Your task to perform on an android device: Go to network settings Image 0: 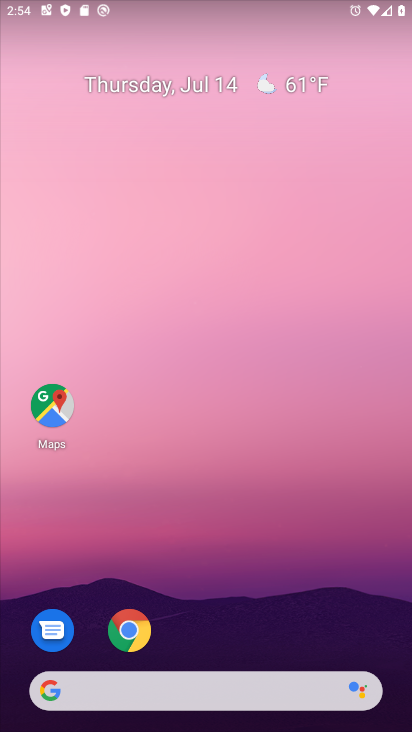
Step 0: click (130, 689)
Your task to perform on an android device: Go to network settings Image 1: 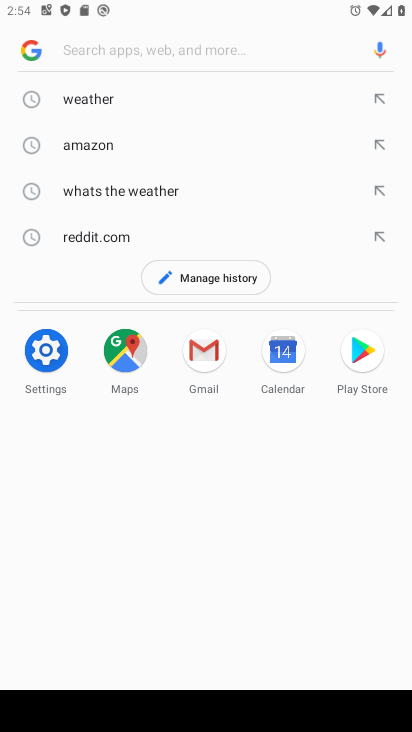
Step 1: click (52, 358)
Your task to perform on an android device: Go to network settings Image 2: 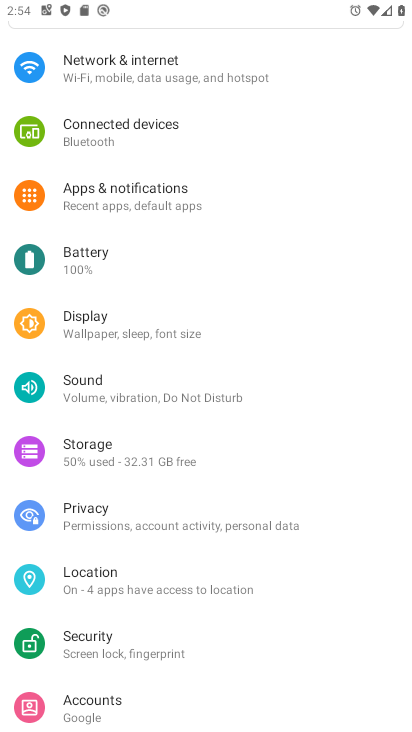
Step 2: click (148, 68)
Your task to perform on an android device: Go to network settings Image 3: 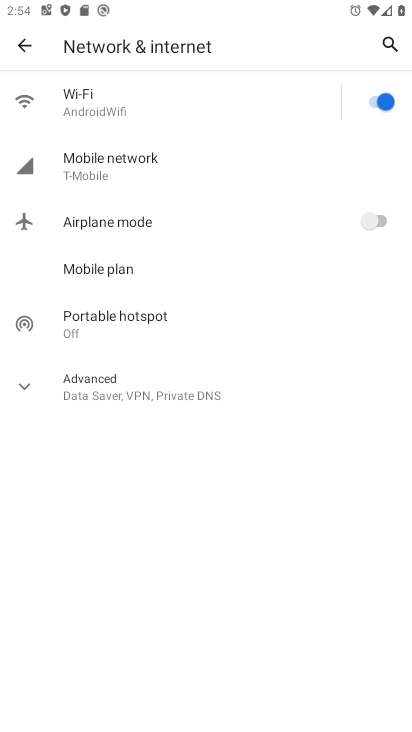
Step 3: click (153, 156)
Your task to perform on an android device: Go to network settings Image 4: 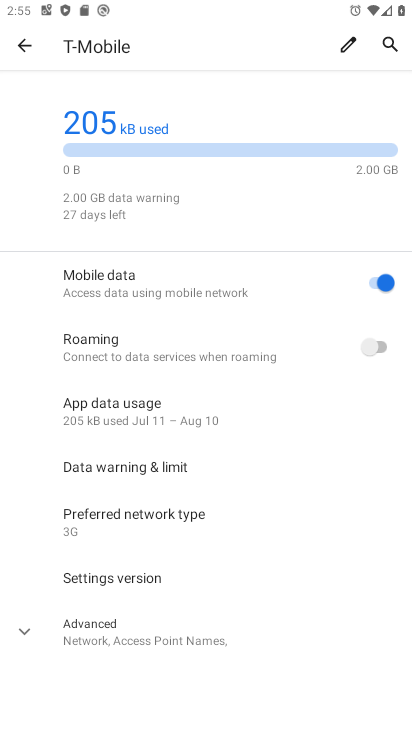
Step 4: task complete